Your task to perform on an android device: Open settings Image 0: 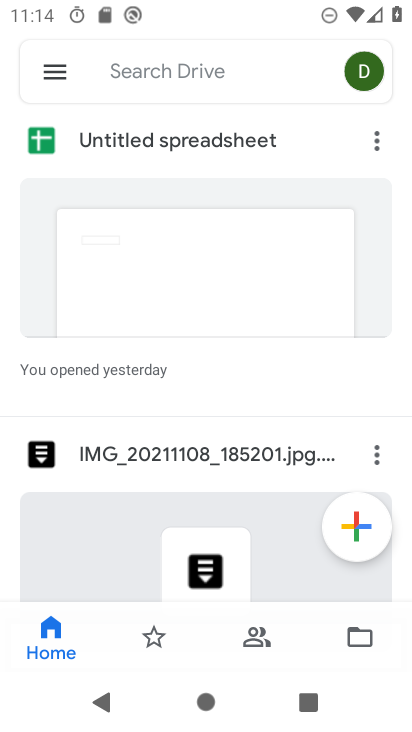
Step 0: press home button
Your task to perform on an android device: Open settings Image 1: 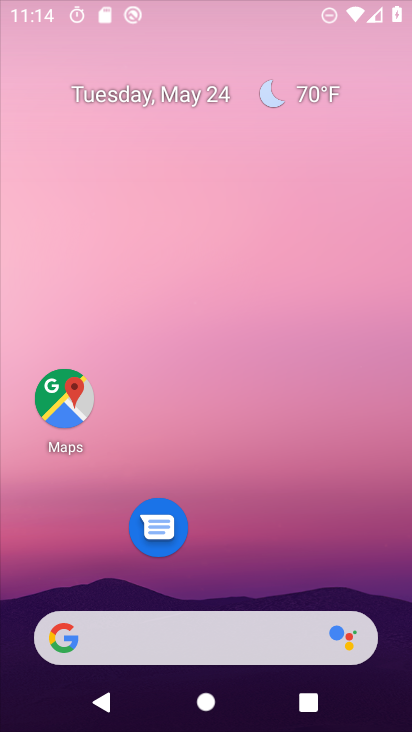
Step 1: drag from (247, 578) to (217, 109)
Your task to perform on an android device: Open settings Image 2: 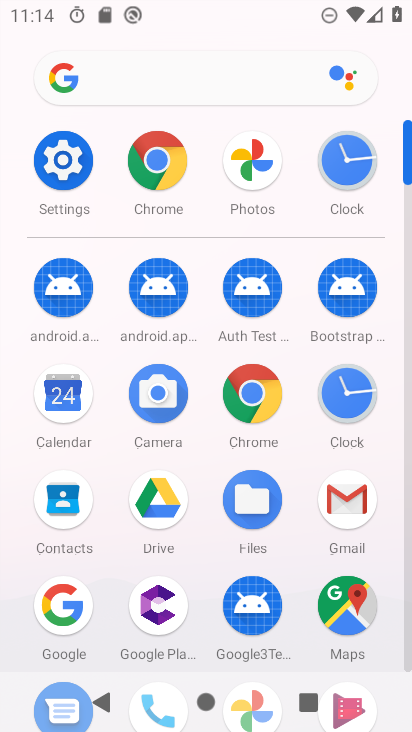
Step 2: click (64, 160)
Your task to perform on an android device: Open settings Image 3: 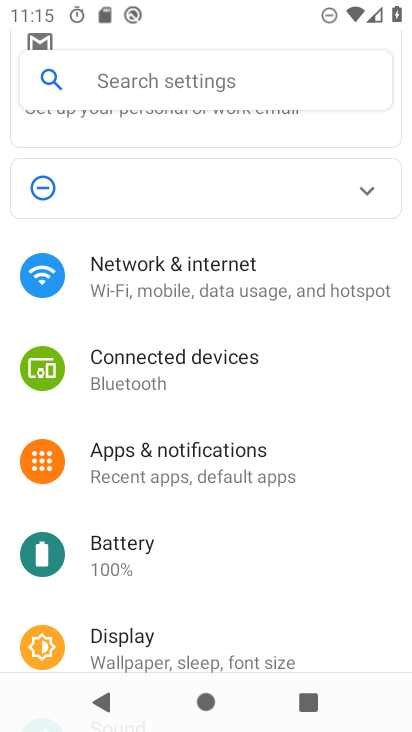
Step 3: task complete